Your task to perform on an android device: install app "Lyft - Rideshare, Bikes, Scooters & Transit" Image 0: 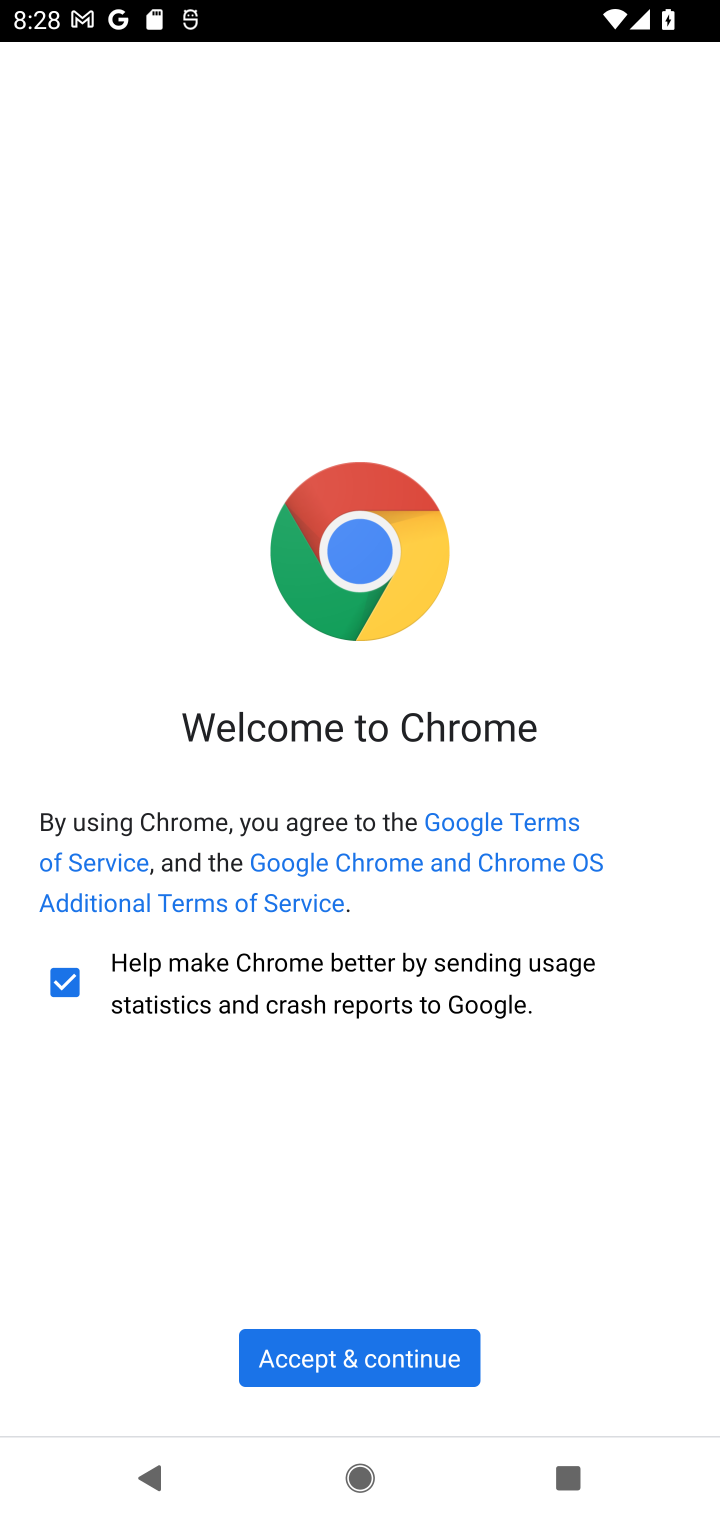
Step 0: press home button
Your task to perform on an android device: install app "Lyft - Rideshare, Bikes, Scooters & Transit" Image 1: 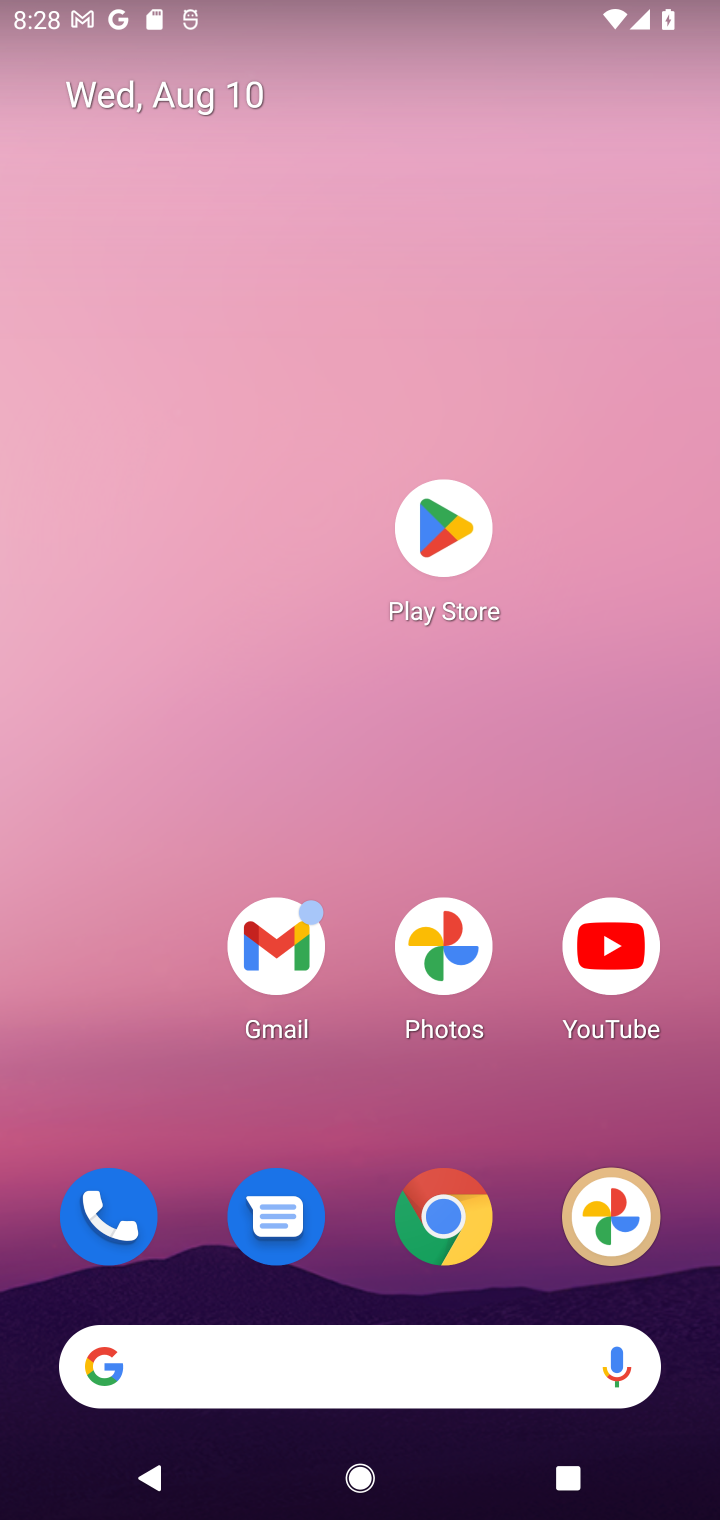
Step 1: click (440, 538)
Your task to perform on an android device: install app "Lyft - Rideshare, Bikes, Scooters & Transit" Image 2: 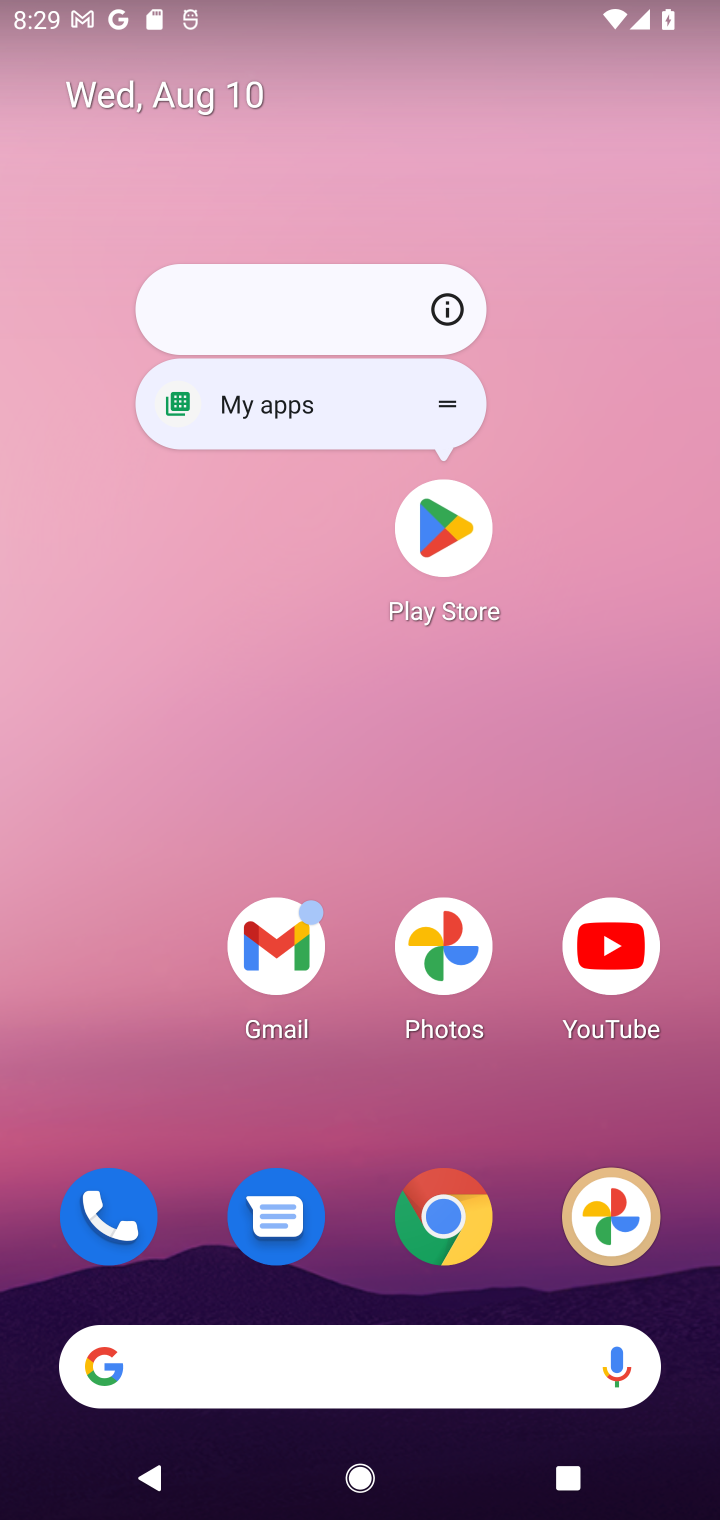
Step 2: click (440, 536)
Your task to perform on an android device: install app "Lyft - Rideshare, Bikes, Scooters & Transit" Image 3: 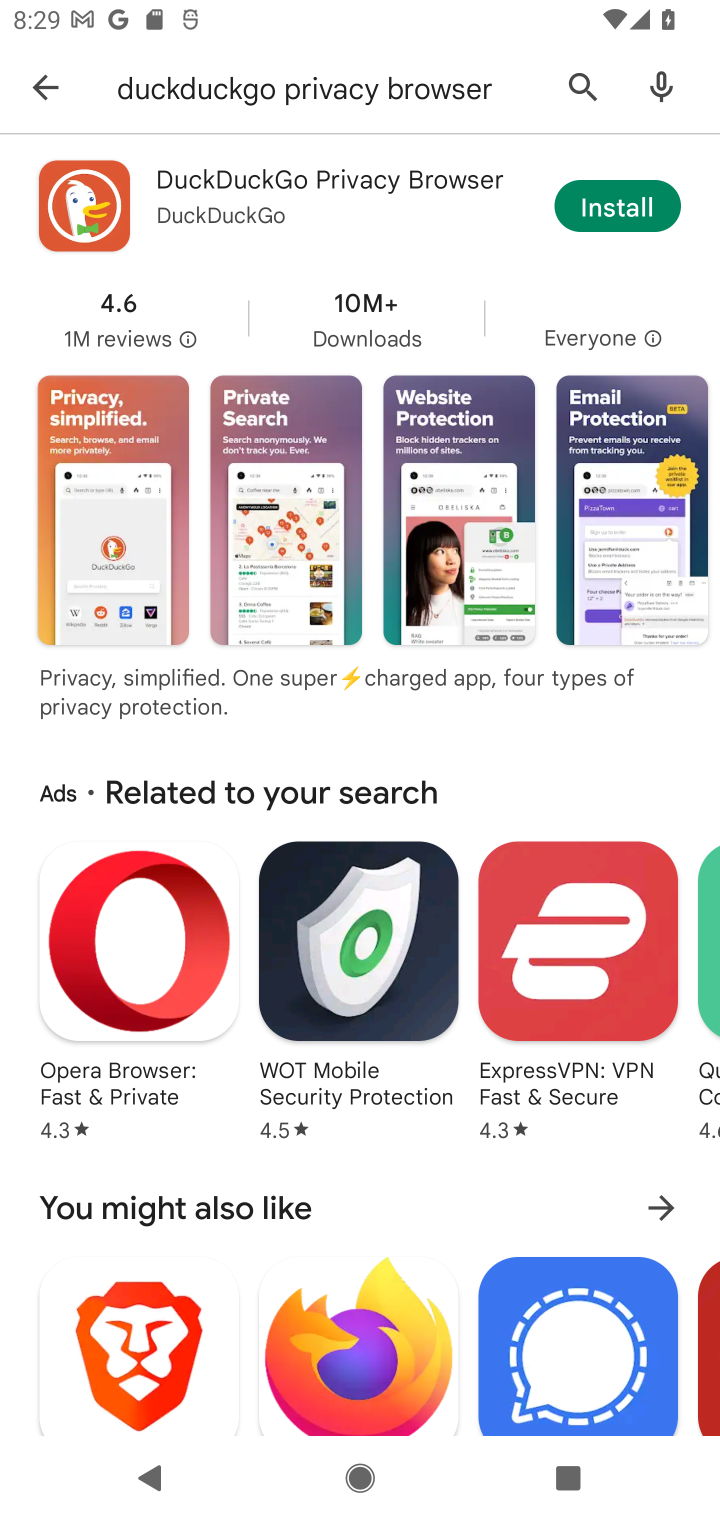
Step 3: click (574, 79)
Your task to perform on an android device: install app "Lyft - Rideshare, Bikes, Scooters & Transit" Image 4: 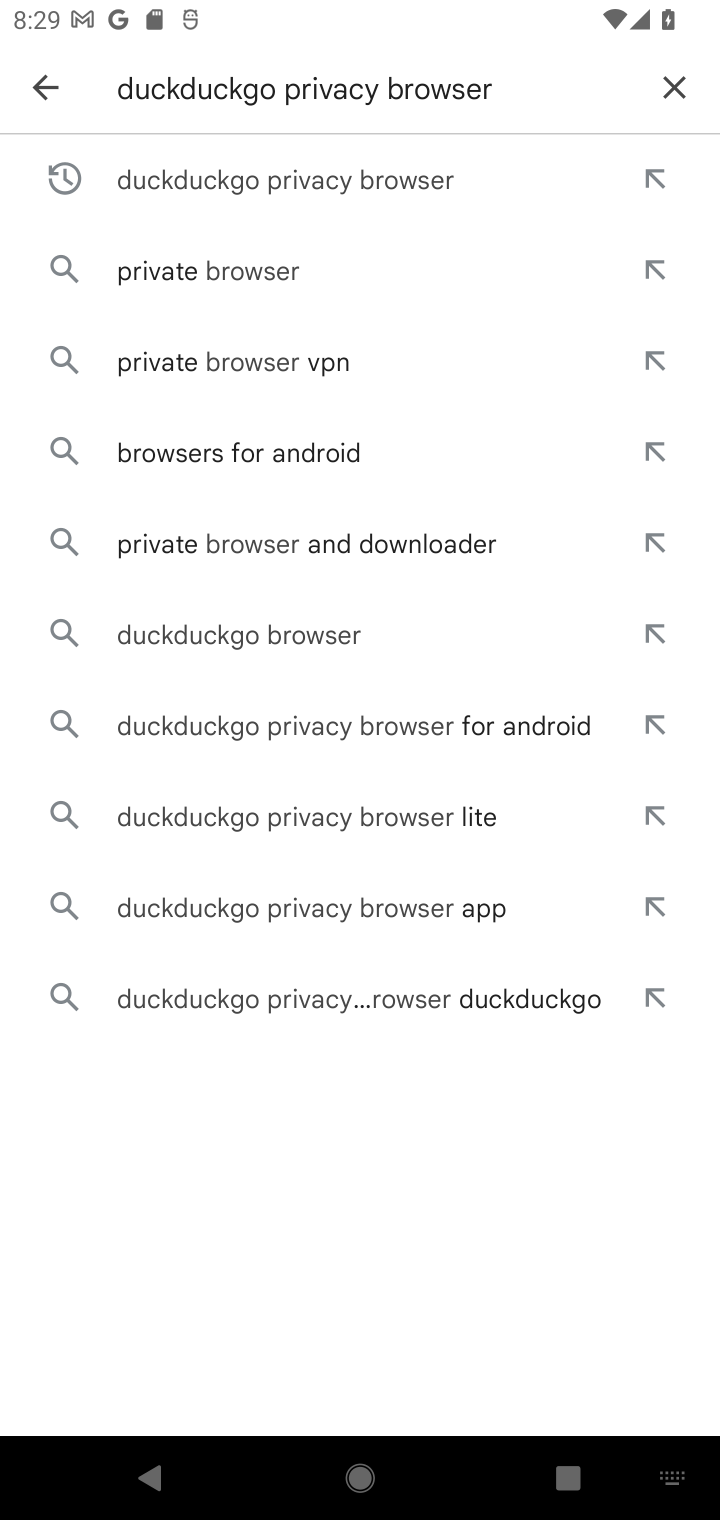
Step 4: click (659, 85)
Your task to perform on an android device: install app "Lyft - Rideshare, Bikes, Scooters & Transit" Image 5: 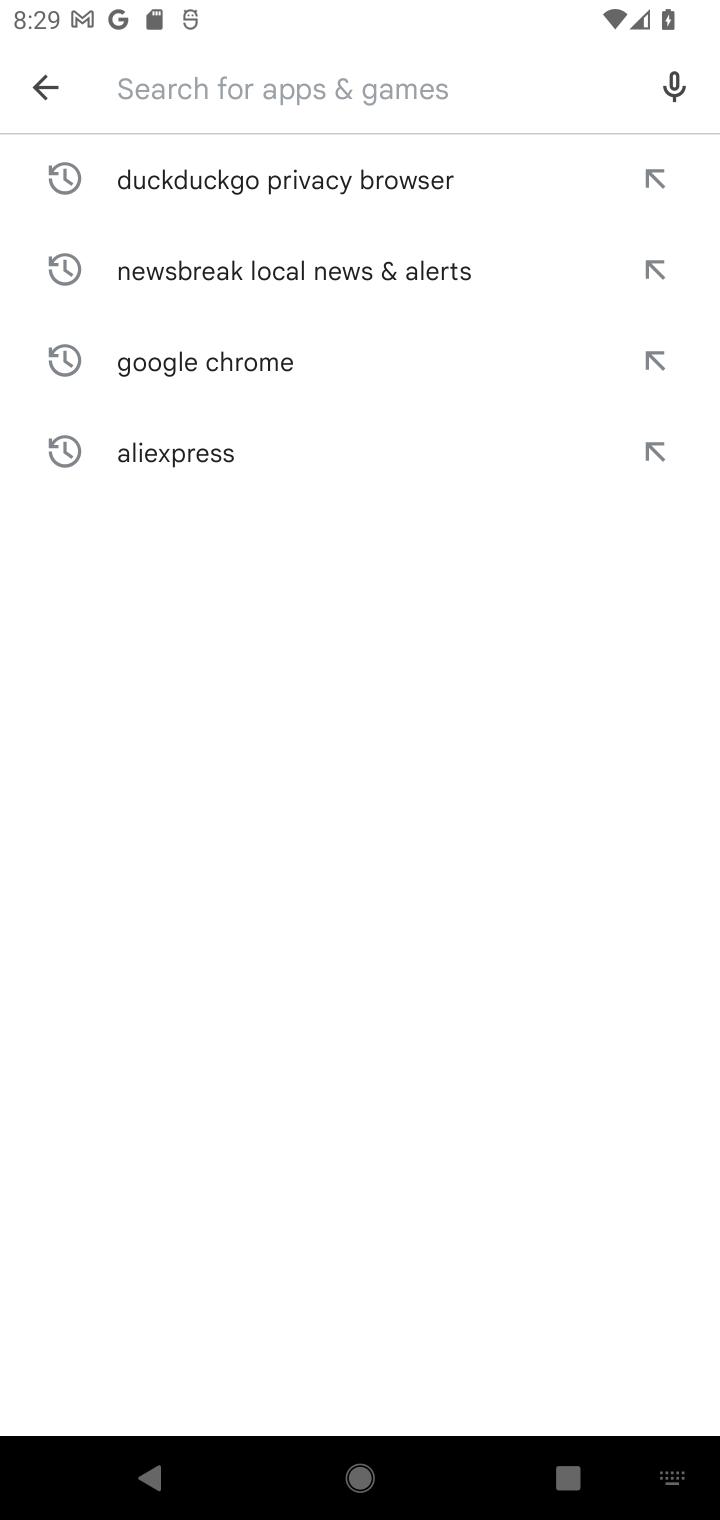
Step 5: type "Lyft - Rideshare, Bikes, Scooters & Transit"
Your task to perform on an android device: install app "Lyft - Rideshare, Bikes, Scooters & Transit" Image 6: 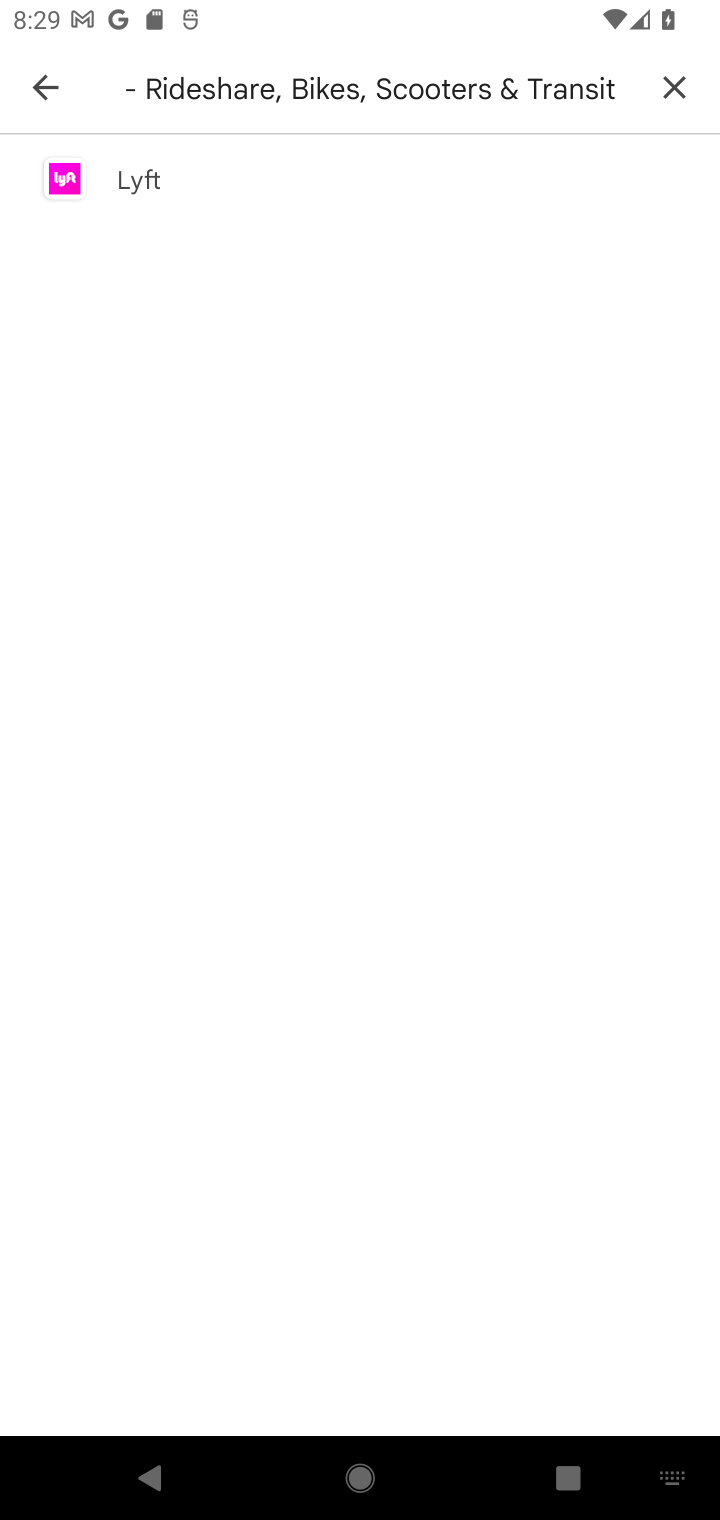
Step 6: click (124, 165)
Your task to perform on an android device: install app "Lyft - Rideshare, Bikes, Scooters & Transit" Image 7: 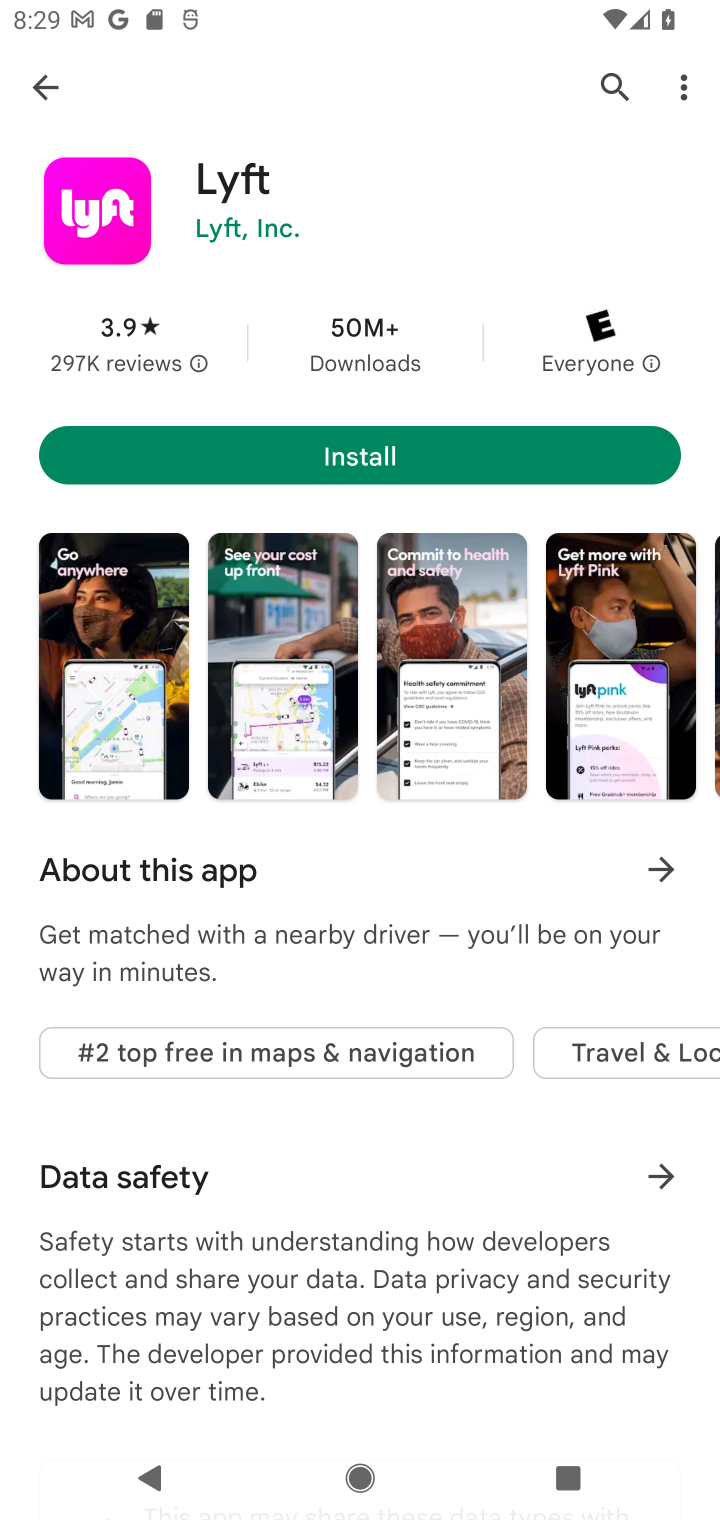
Step 7: click (351, 456)
Your task to perform on an android device: install app "Lyft - Rideshare, Bikes, Scooters & Transit" Image 8: 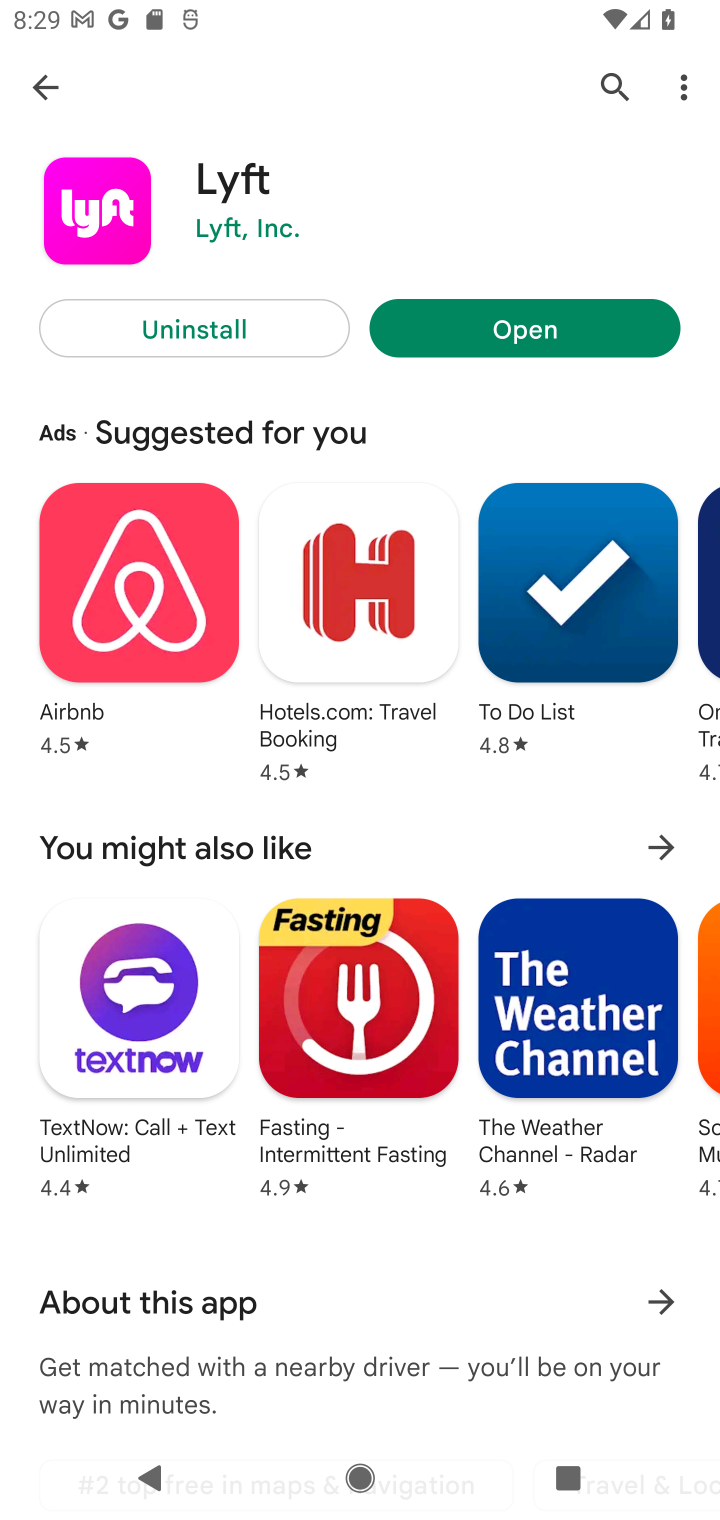
Step 8: task complete